Your task to perform on an android device: open a bookmark in the chrome app Image 0: 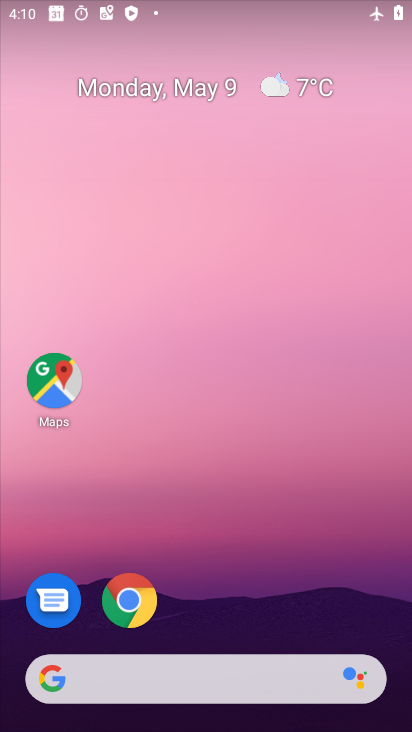
Step 0: click (127, 605)
Your task to perform on an android device: open a bookmark in the chrome app Image 1: 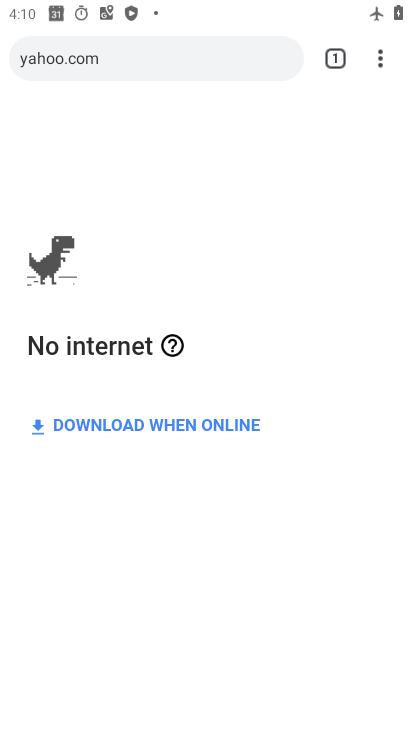
Step 1: task complete